Your task to perform on an android device: turn on priority inbox in the gmail app Image 0: 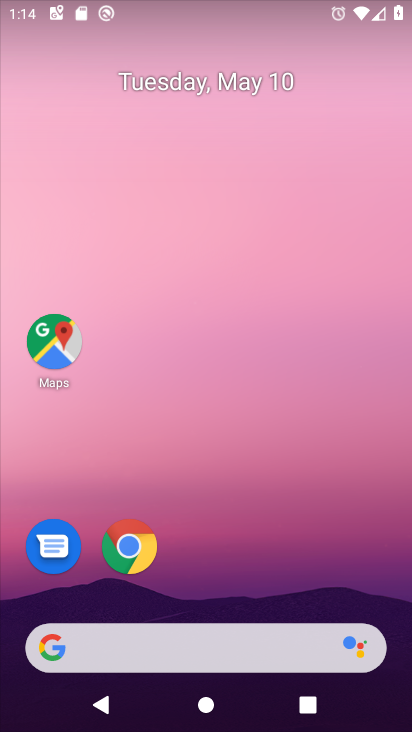
Step 0: drag from (256, 564) to (311, 214)
Your task to perform on an android device: turn on priority inbox in the gmail app Image 1: 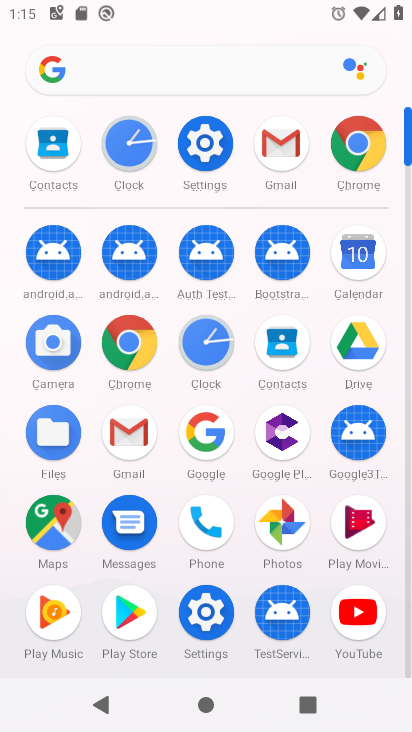
Step 1: click (134, 419)
Your task to perform on an android device: turn on priority inbox in the gmail app Image 2: 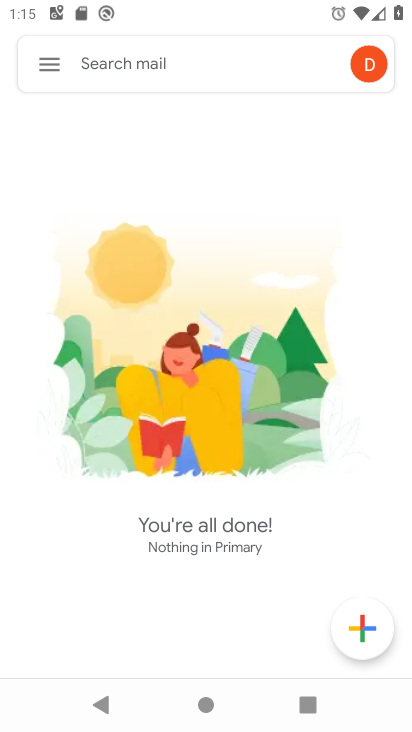
Step 2: click (57, 55)
Your task to perform on an android device: turn on priority inbox in the gmail app Image 3: 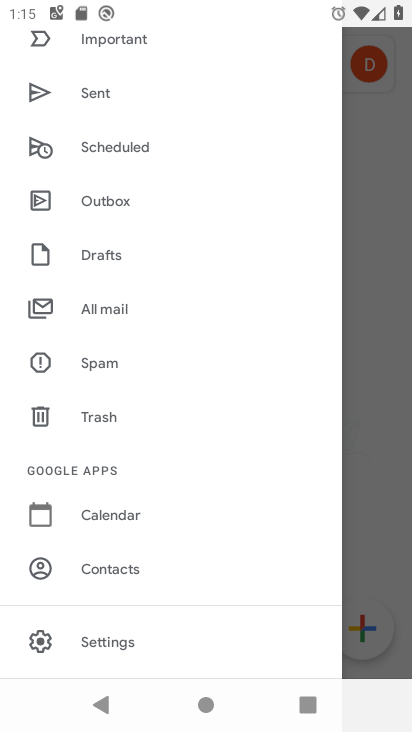
Step 3: click (156, 648)
Your task to perform on an android device: turn on priority inbox in the gmail app Image 4: 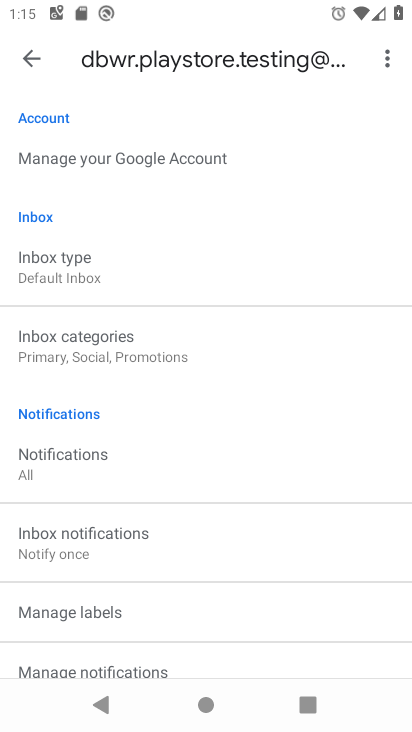
Step 4: click (102, 261)
Your task to perform on an android device: turn on priority inbox in the gmail app Image 5: 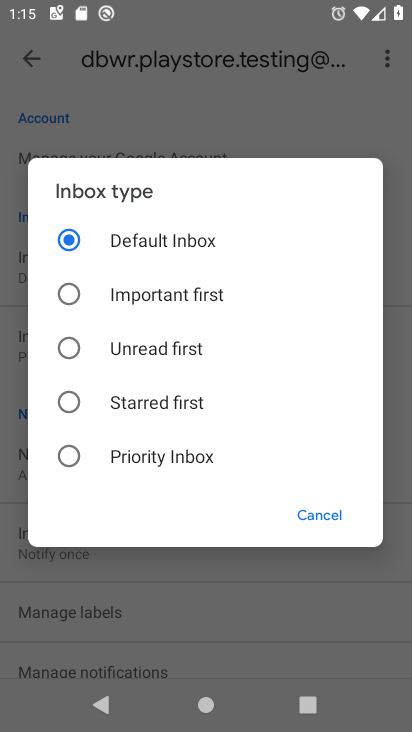
Step 5: click (184, 455)
Your task to perform on an android device: turn on priority inbox in the gmail app Image 6: 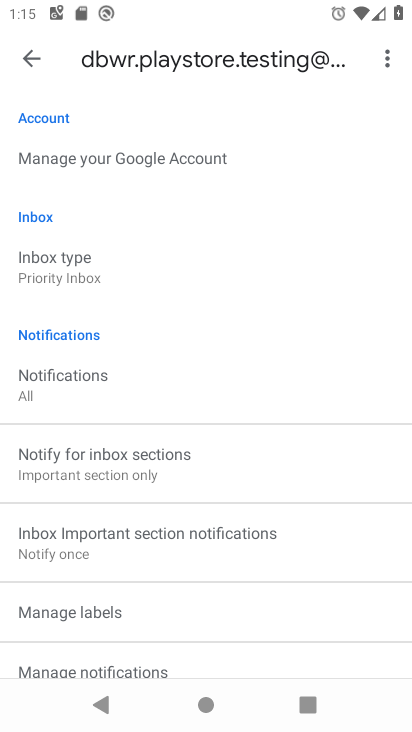
Step 6: task complete